Your task to perform on an android device: Open privacy settings Image 0: 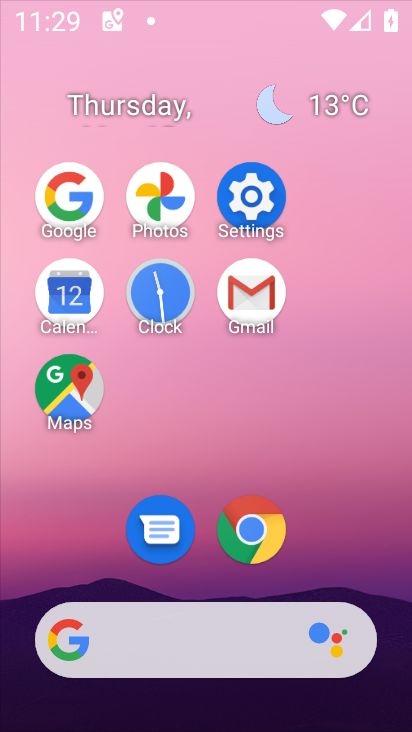
Step 0: click (256, 189)
Your task to perform on an android device: Open privacy settings Image 1: 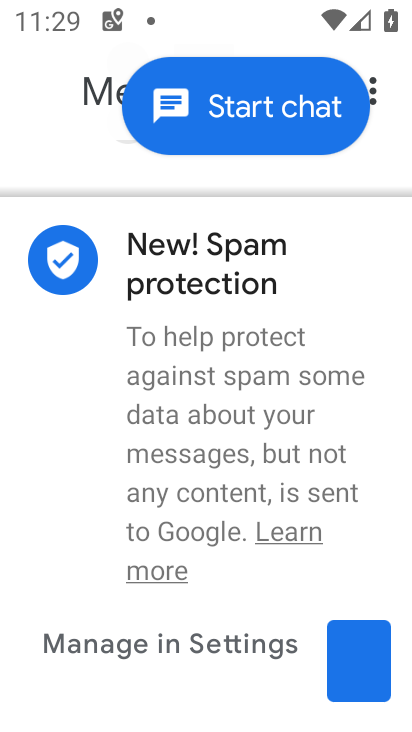
Step 1: press back button
Your task to perform on an android device: Open privacy settings Image 2: 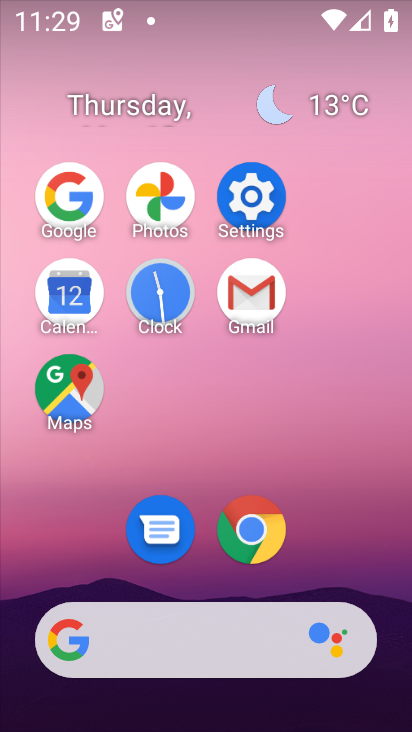
Step 2: click (237, 204)
Your task to perform on an android device: Open privacy settings Image 3: 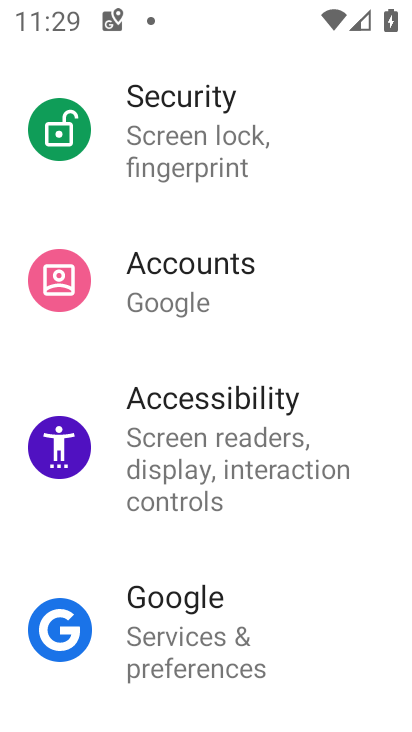
Step 3: drag from (251, 586) to (267, 228)
Your task to perform on an android device: Open privacy settings Image 4: 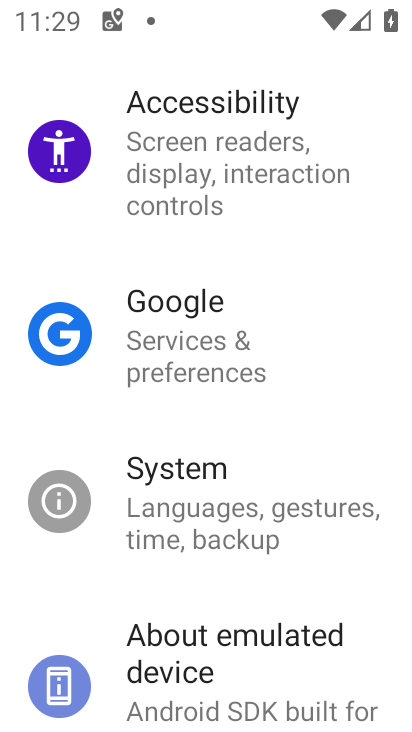
Step 4: drag from (268, 533) to (287, 213)
Your task to perform on an android device: Open privacy settings Image 5: 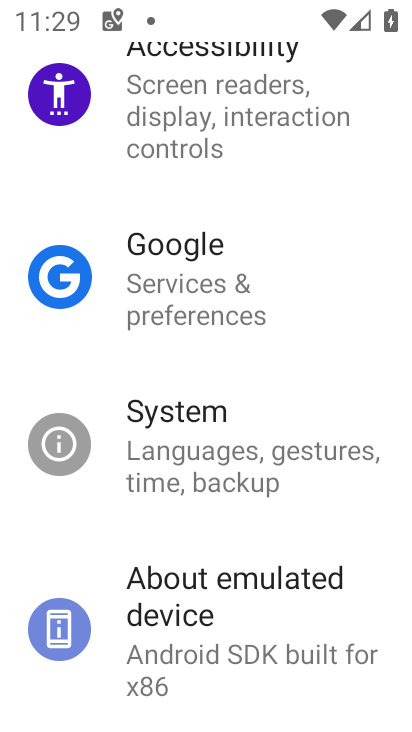
Step 5: drag from (314, 176) to (288, 616)
Your task to perform on an android device: Open privacy settings Image 6: 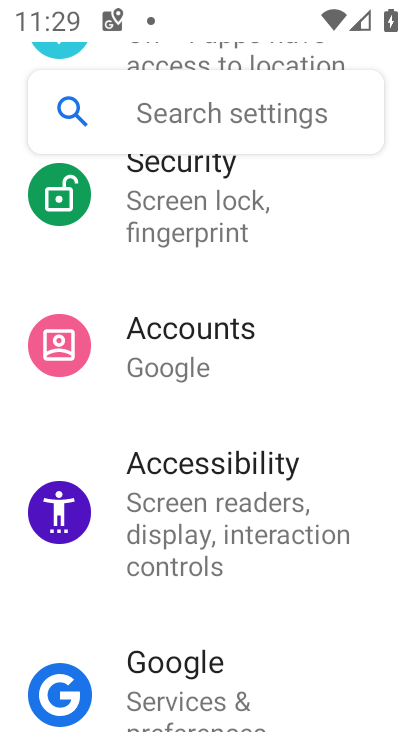
Step 6: drag from (304, 200) to (280, 682)
Your task to perform on an android device: Open privacy settings Image 7: 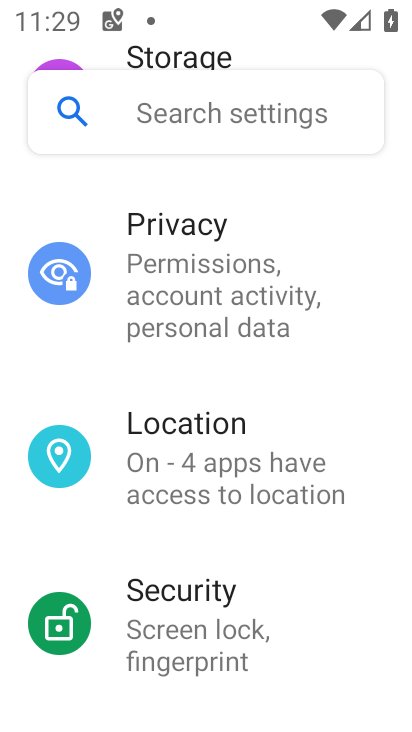
Step 7: click (299, 255)
Your task to perform on an android device: Open privacy settings Image 8: 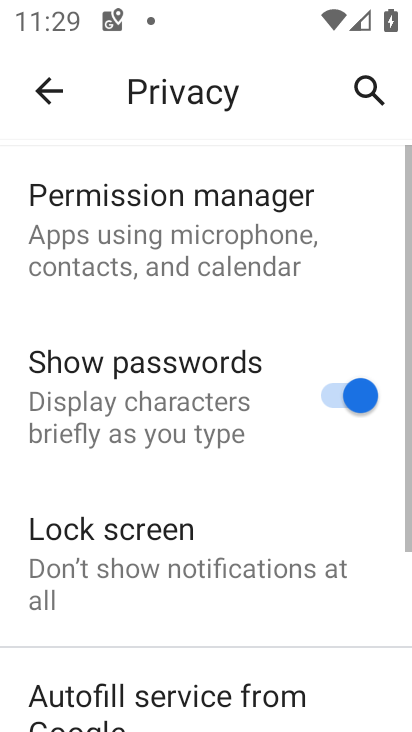
Step 8: task complete